Your task to perform on an android device: Do I have any events this weekend? Image 0: 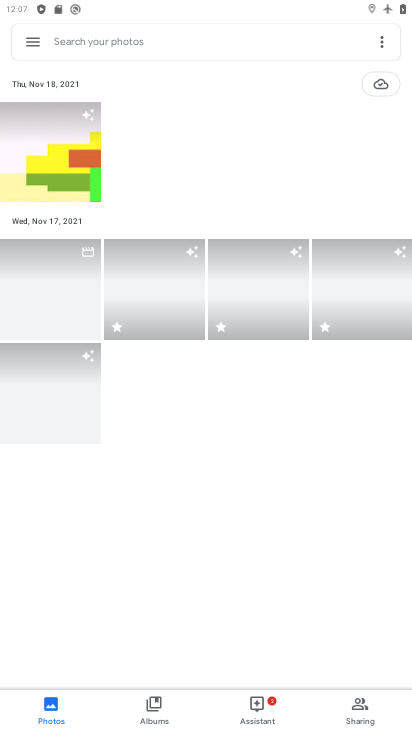
Step 0: press home button
Your task to perform on an android device: Do I have any events this weekend? Image 1: 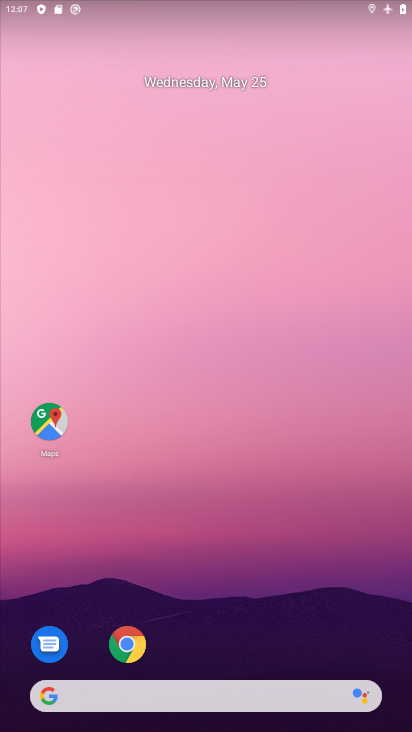
Step 1: drag from (254, 606) to (183, 107)
Your task to perform on an android device: Do I have any events this weekend? Image 2: 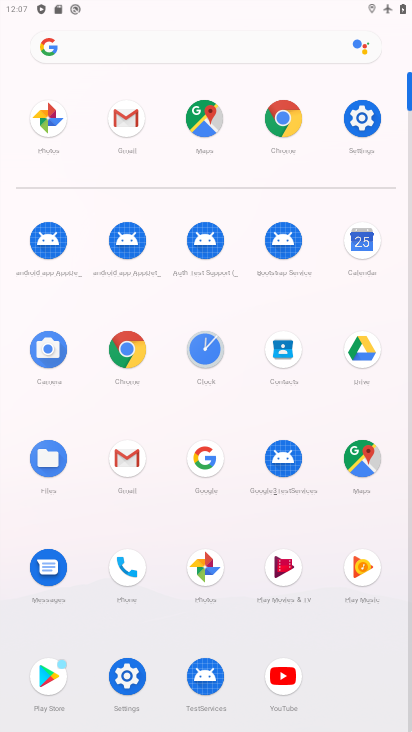
Step 2: click (358, 247)
Your task to perform on an android device: Do I have any events this weekend? Image 3: 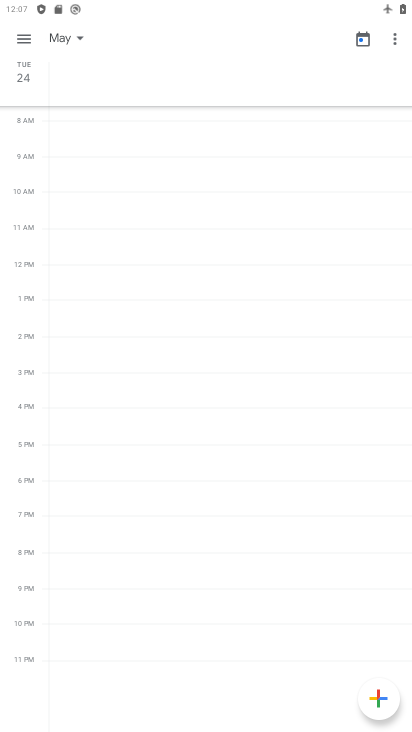
Step 3: click (25, 35)
Your task to perform on an android device: Do I have any events this weekend? Image 4: 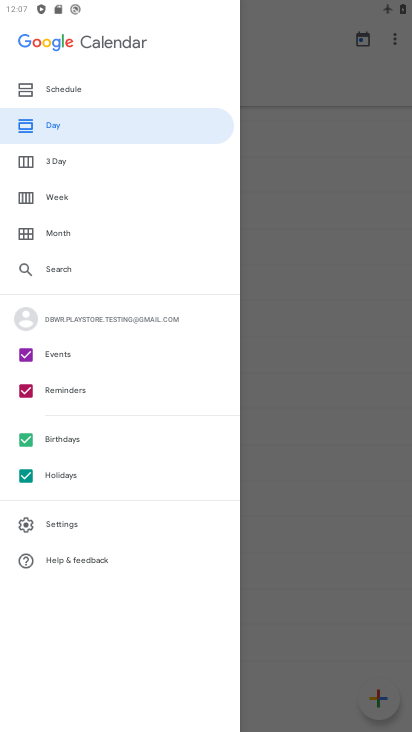
Step 4: click (62, 191)
Your task to perform on an android device: Do I have any events this weekend? Image 5: 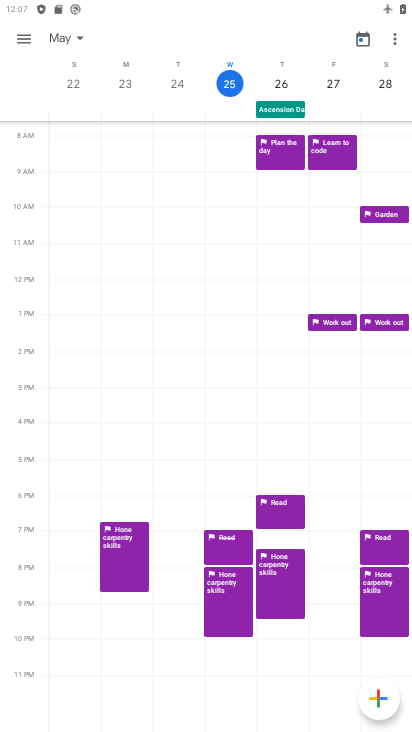
Step 5: task complete